Your task to perform on an android device: Go to internet settings Image 0: 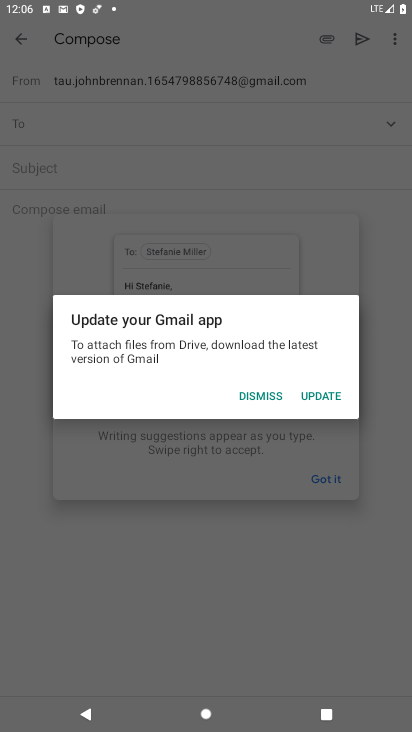
Step 0: press home button
Your task to perform on an android device: Go to internet settings Image 1: 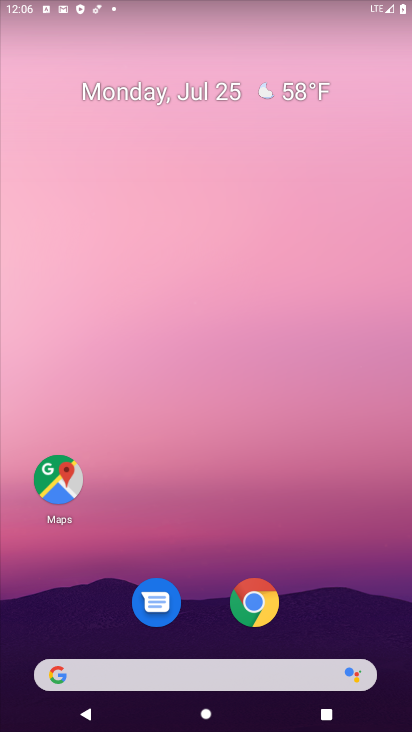
Step 1: drag from (203, 587) to (246, 194)
Your task to perform on an android device: Go to internet settings Image 2: 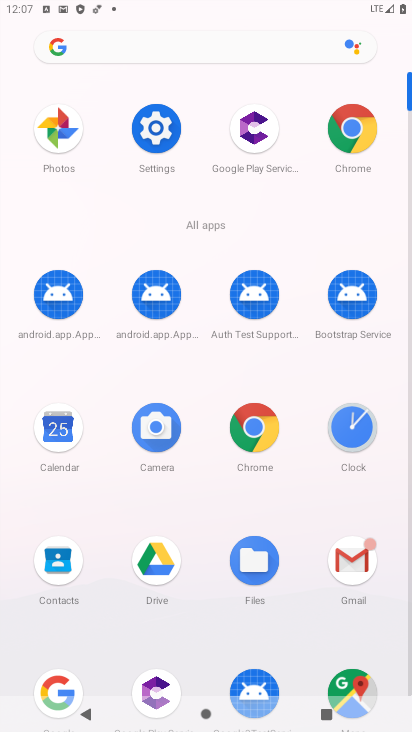
Step 2: click (143, 140)
Your task to perform on an android device: Go to internet settings Image 3: 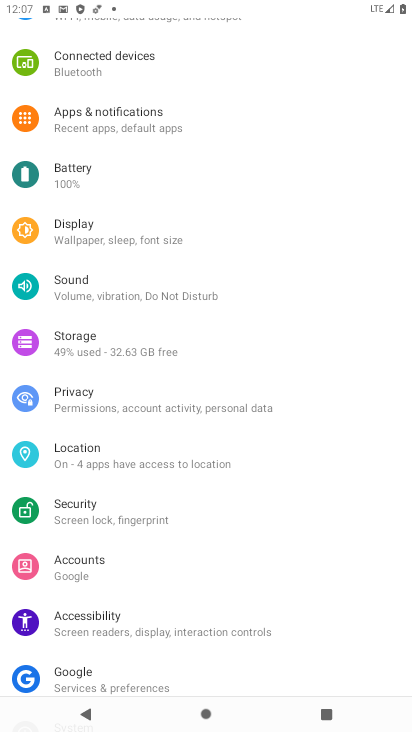
Step 3: drag from (143, 140) to (149, 432)
Your task to perform on an android device: Go to internet settings Image 4: 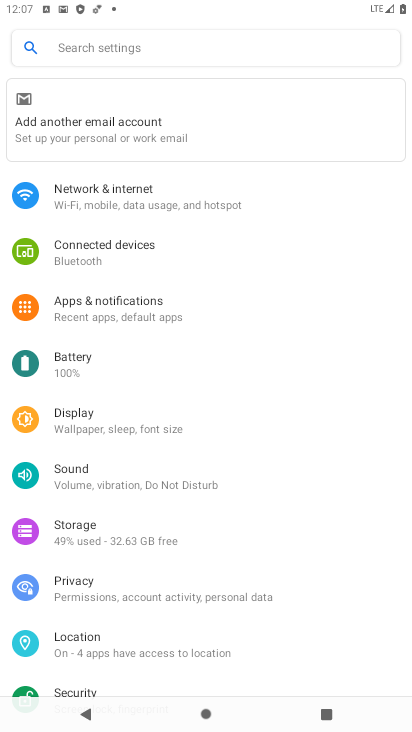
Step 4: click (149, 202)
Your task to perform on an android device: Go to internet settings Image 5: 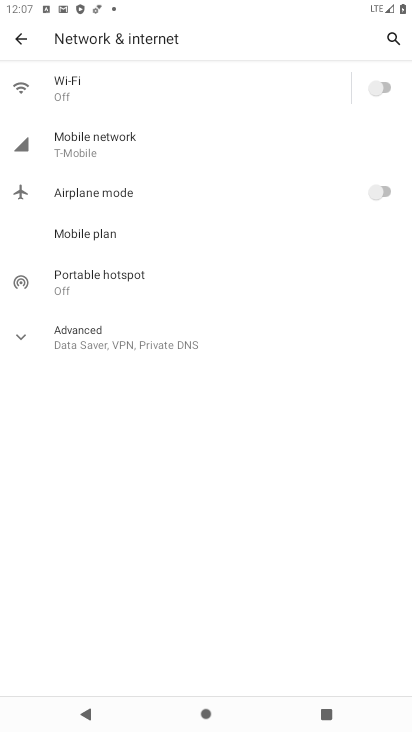
Step 5: task complete